Your task to perform on an android device: Go to network settings Image 0: 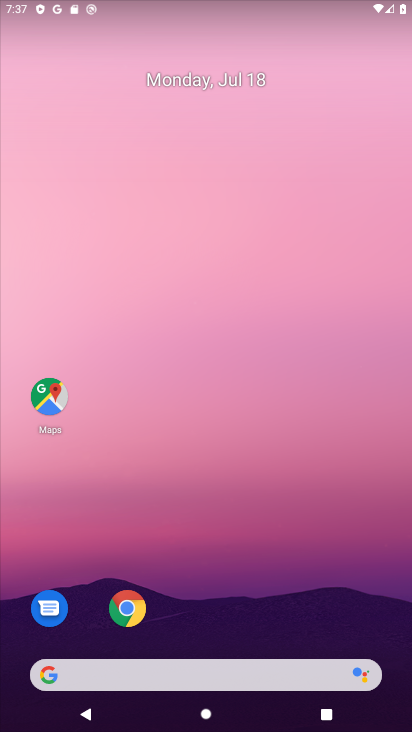
Step 0: drag from (186, 620) to (197, 110)
Your task to perform on an android device: Go to network settings Image 1: 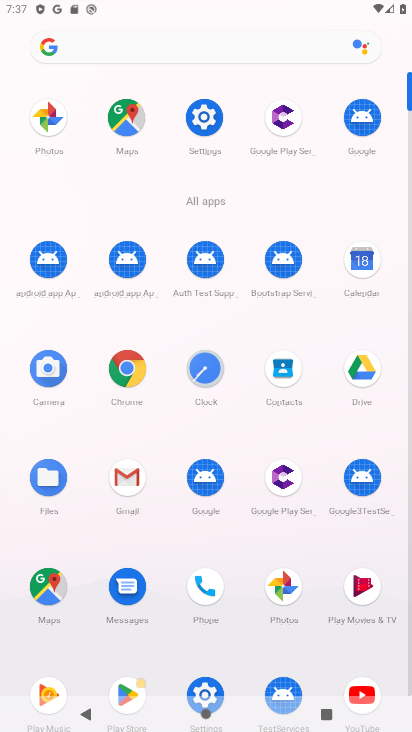
Step 1: click (202, 110)
Your task to perform on an android device: Go to network settings Image 2: 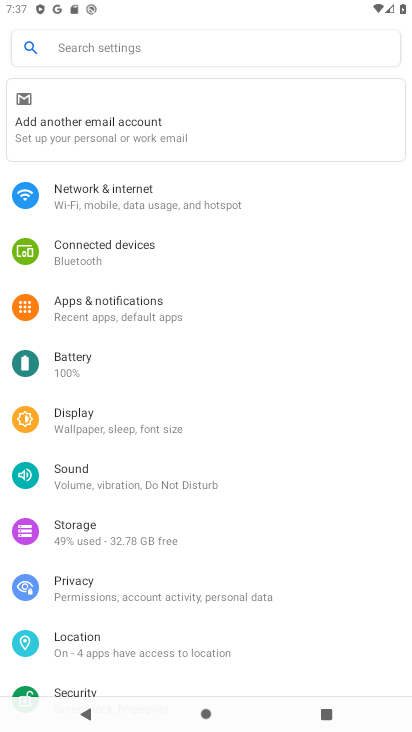
Step 2: click (125, 196)
Your task to perform on an android device: Go to network settings Image 3: 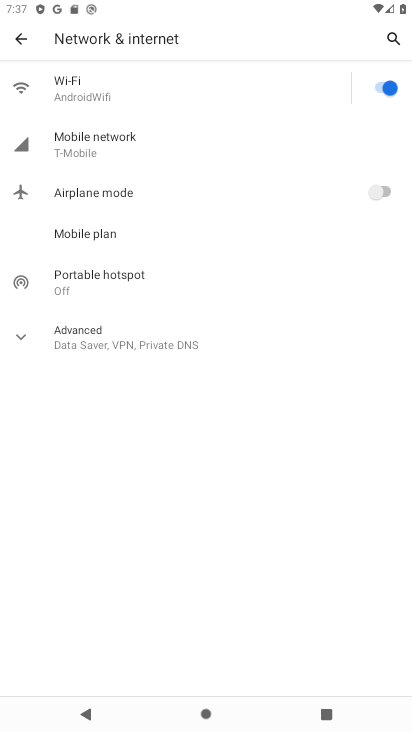
Step 3: click (106, 149)
Your task to perform on an android device: Go to network settings Image 4: 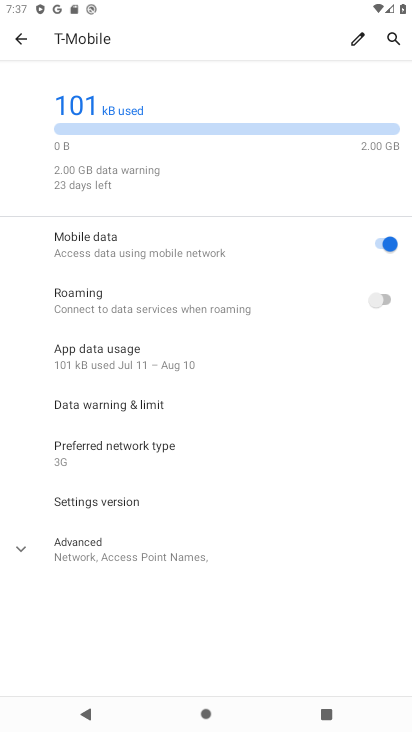
Step 4: task complete